Your task to perform on an android device: change notification settings in the gmail app Image 0: 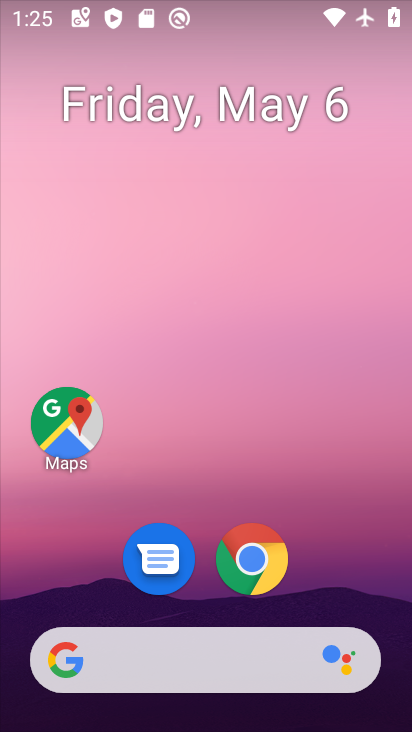
Step 0: drag from (177, 635) to (264, 118)
Your task to perform on an android device: change notification settings in the gmail app Image 1: 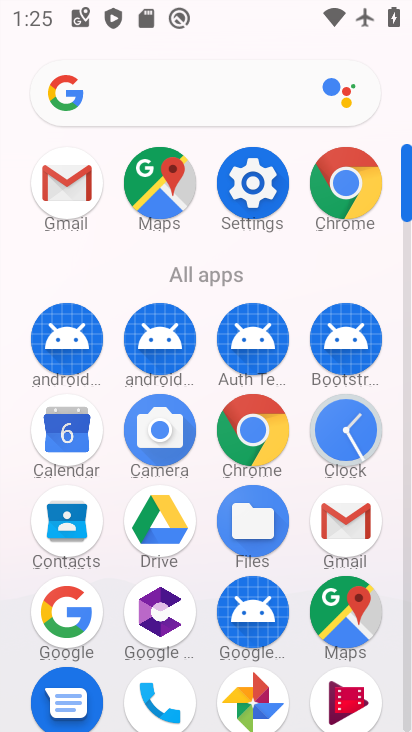
Step 1: click (72, 198)
Your task to perform on an android device: change notification settings in the gmail app Image 2: 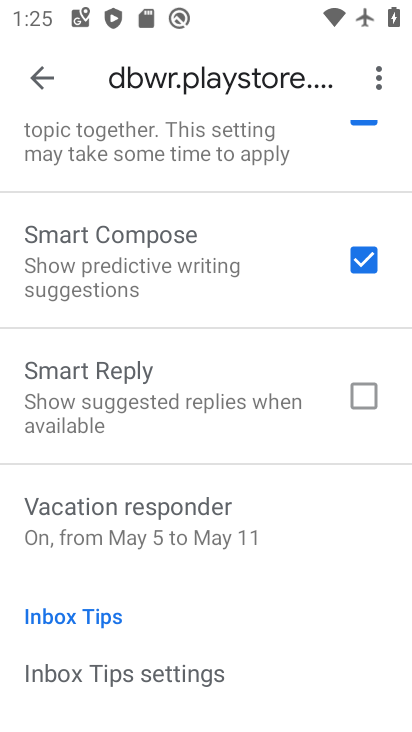
Step 2: drag from (253, 215) to (184, 586)
Your task to perform on an android device: change notification settings in the gmail app Image 3: 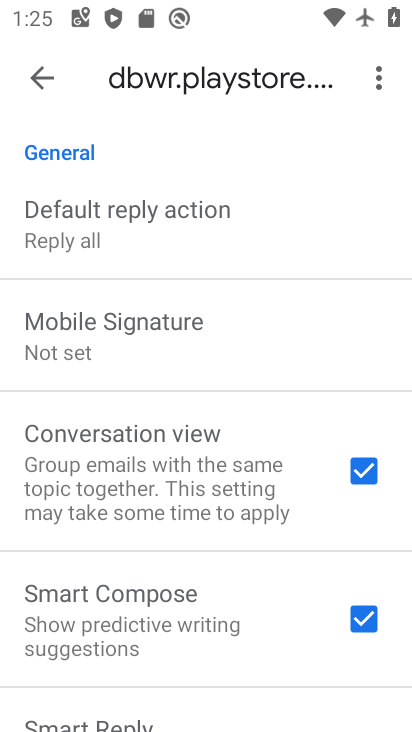
Step 3: drag from (242, 160) to (199, 628)
Your task to perform on an android device: change notification settings in the gmail app Image 4: 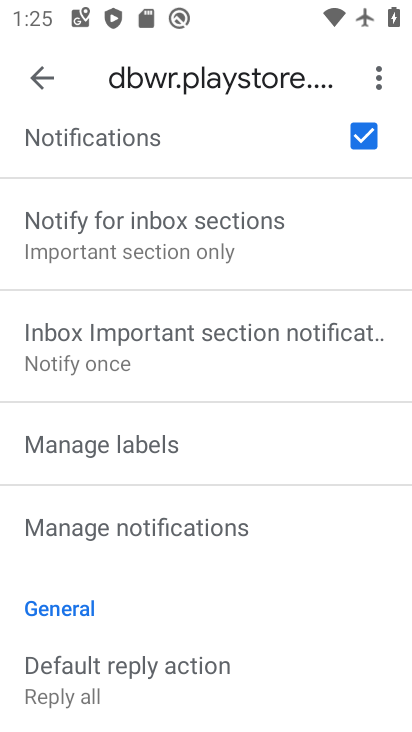
Step 4: drag from (293, 212) to (282, 569)
Your task to perform on an android device: change notification settings in the gmail app Image 5: 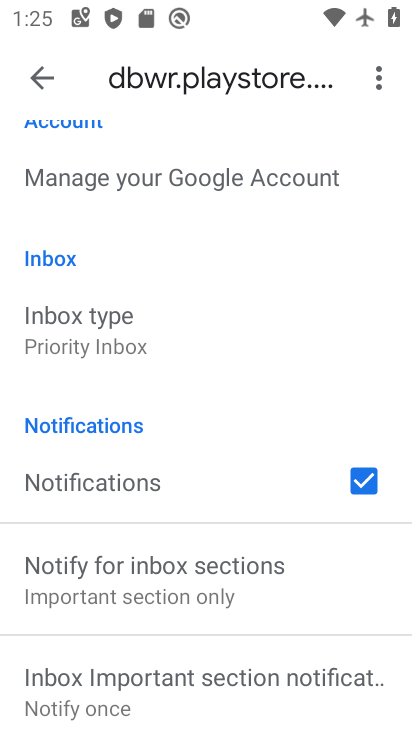
Step 5: click (363, 486)
Your task to perform on an android device: change notification settings in the gmail app Image 6: 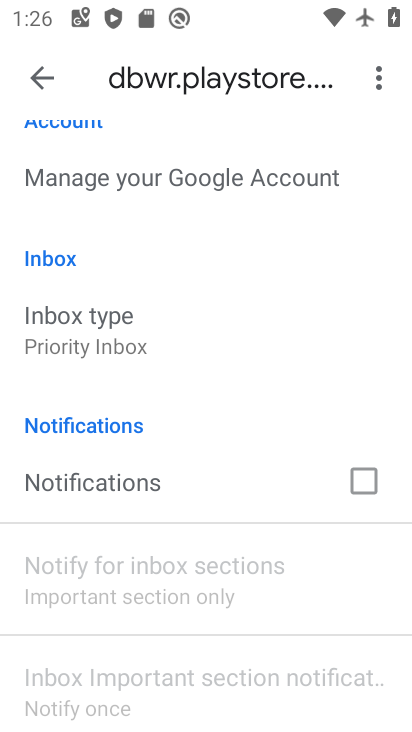
Step 6: task complete